Your task to perform on an android device: Go to network settings Image 0: 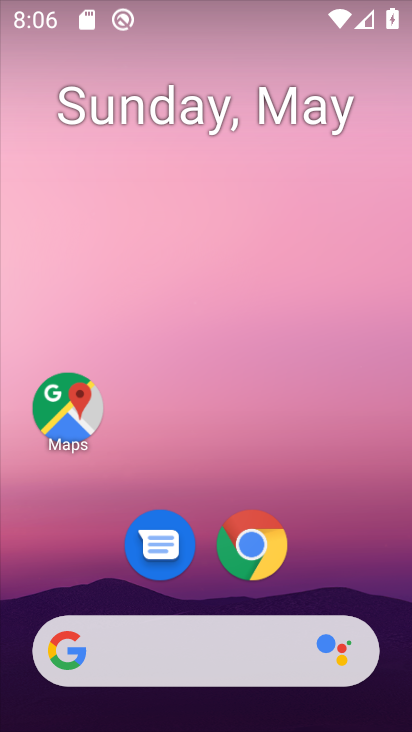
Step 0: drag from (78, 607) to (185, 139)
Your task to perform on an android device: Go to network settings Image 1: 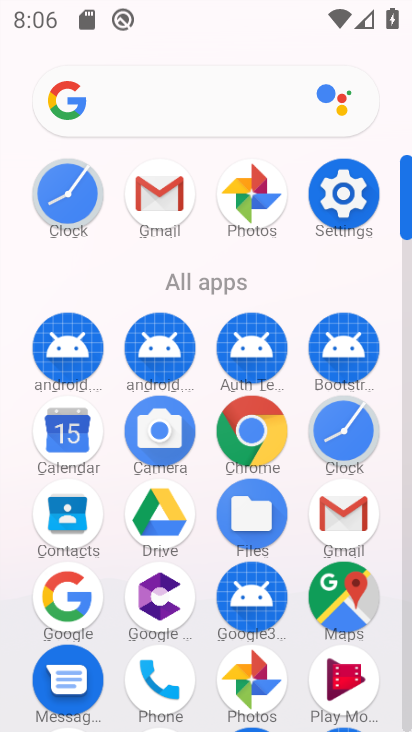
Step 1: drag from (181, 614) to (249, 389)
Your task to perform on an android device: Go to network settings Image 2: 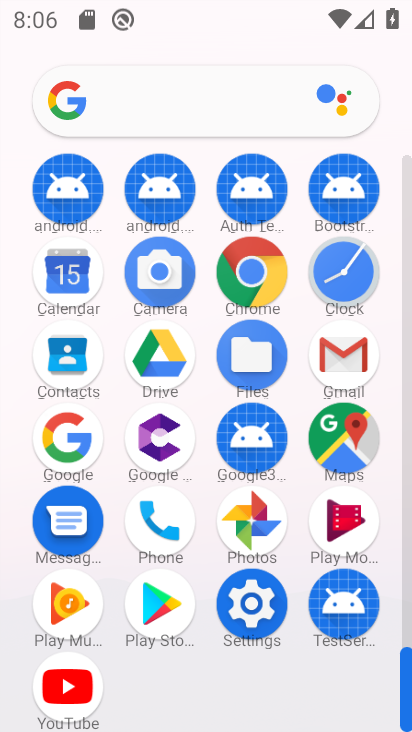
Step 2: click (245, 624)
Your task to perform on an android device: Go to network settings Image 3: 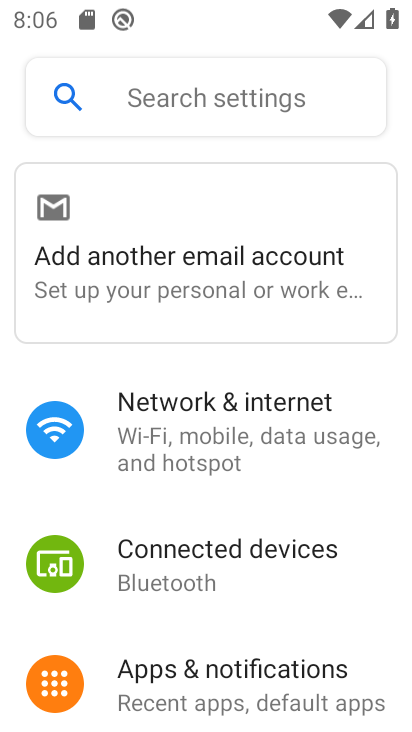
Step 3: click (219, 448)
Your task to perform on an android device: Go to network settings Image 4: 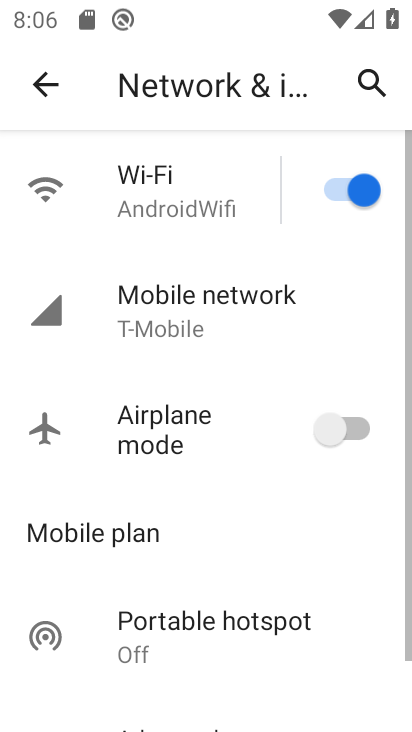
Step 4: click (222, 334)
Your task to perform on an android device: Go to network settings Image 5: 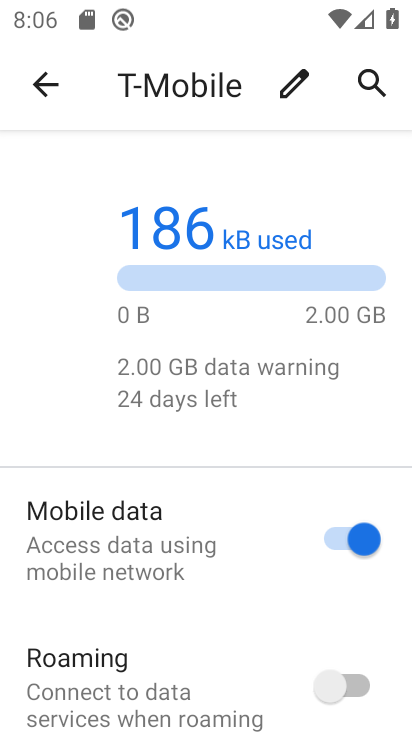
Step 5: task complete